Your task to perform on an android device: Open ESPN.com Image 0: 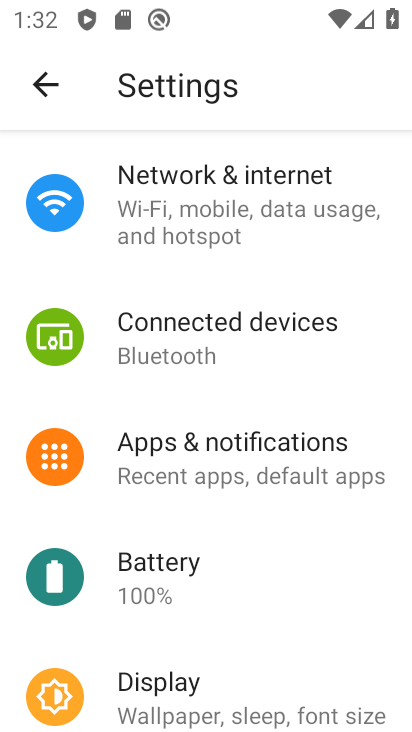
Step 0: click (406, 43)
Your task to perform on an android device: Open ESPN.com Image 1: 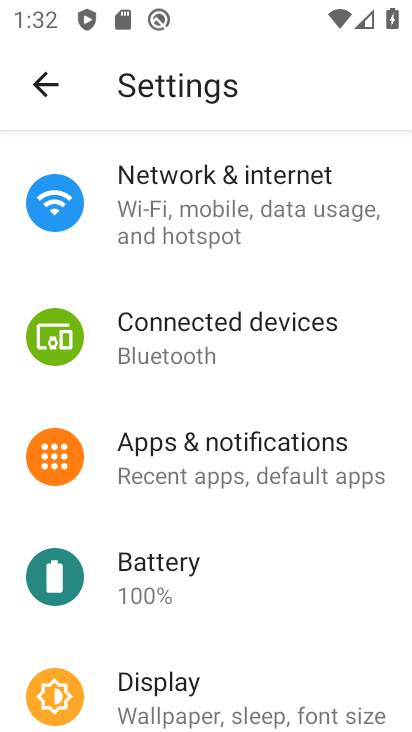
Step 1: press home button
Your task to perform on an android device: Open ESPN.com Image 2: 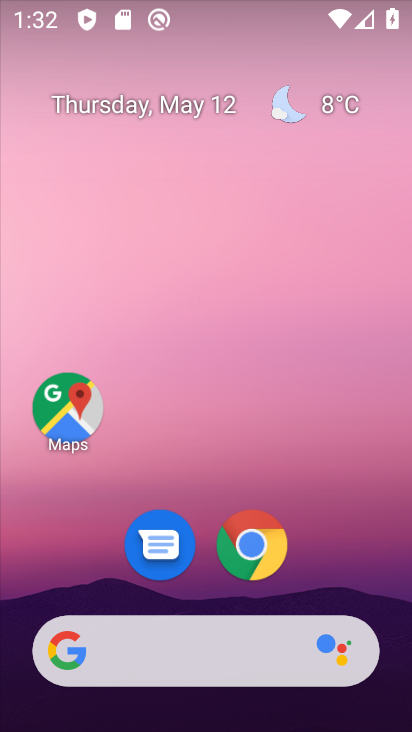
Step 2: drag from (187, 640) to (210, 215)
Your task to perform on an android device: Open ESPN.com Image 3: 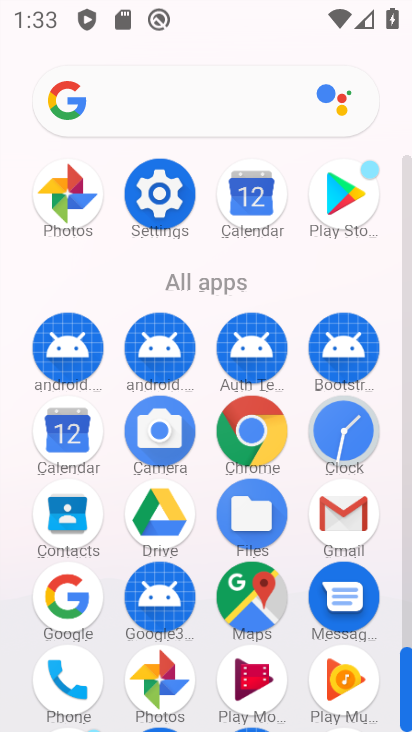
Step 3: click (165, 100)
Your task to perform on an android device: Open ESPN.com Image 4: 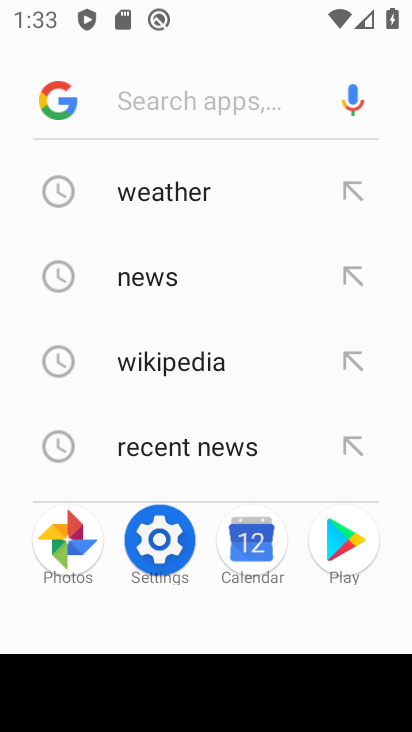
Step 4: type "espn.com"
Your task to perform on an android device: Open ESPN.com Image 5: 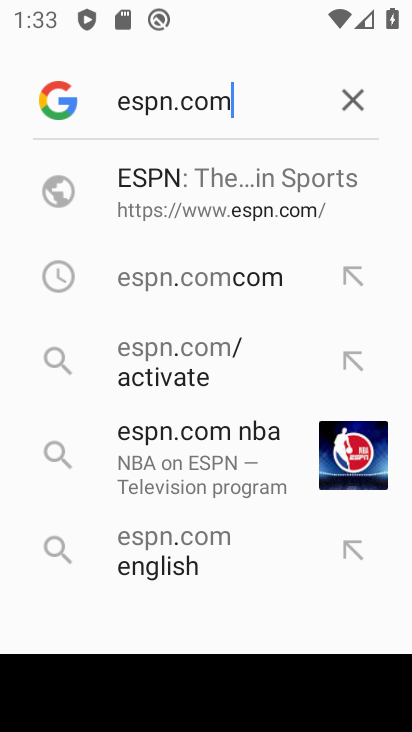
Step 5: click (165, 182)
Your task to perform on an android device: Open ESPN.com Image 6: 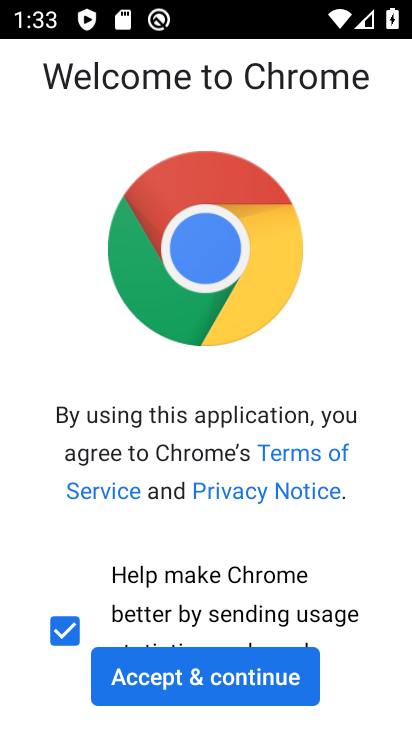
Step 6: click (238, 217)
Your task to perform on an android device: Open ESPN.com Image 7: 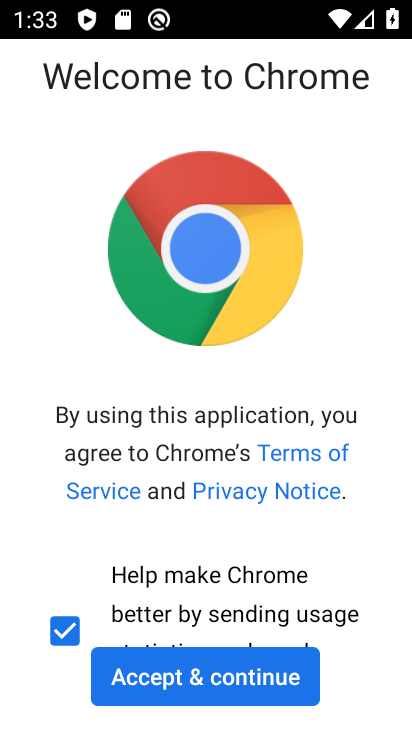
Step 7: drag from (248, 557) to (198, 203)
Your task to perform on an android device: Open ESPN.com Image 8: 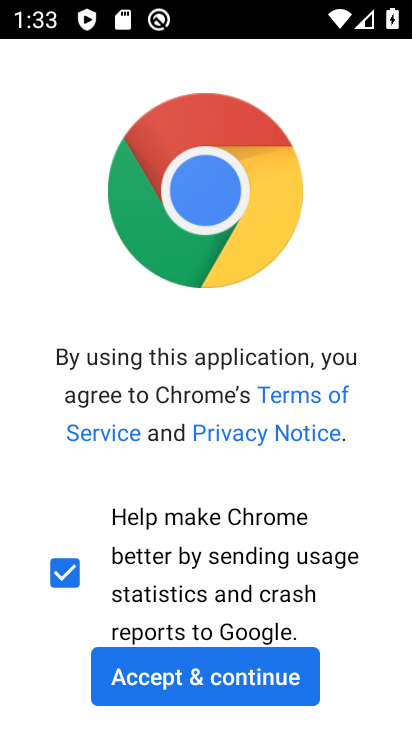
Step 8: click (178, 689)
Your task to perform on an android device: Open ESPN.com Image 9: 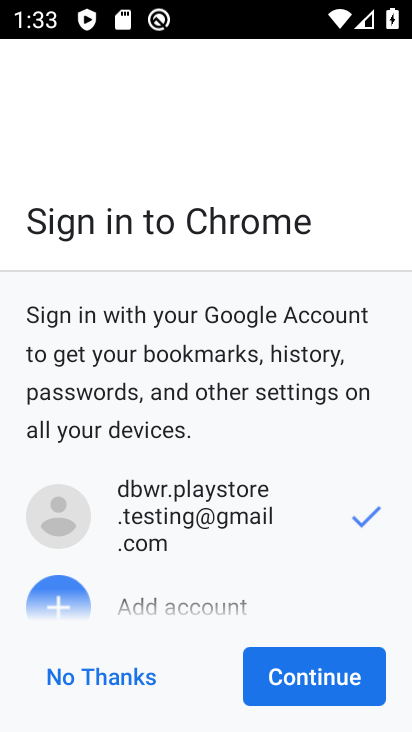
Step 9: click (97, 678)
Your task to perform on an android device: Open ESPN.com Image 10: 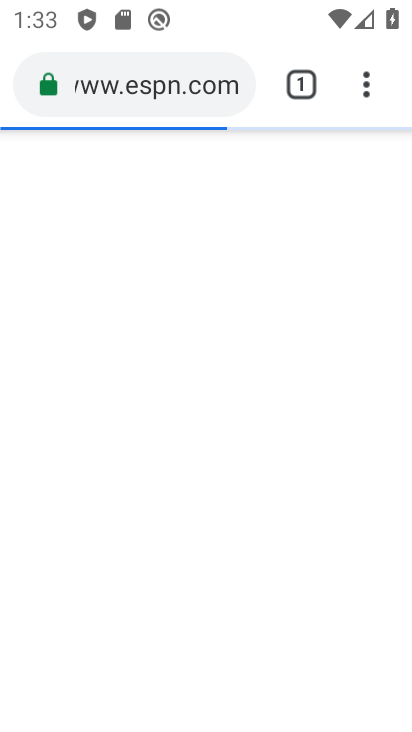
Step 10: task complete